Your task to perform on an android device: change text size in settings app Image 0: 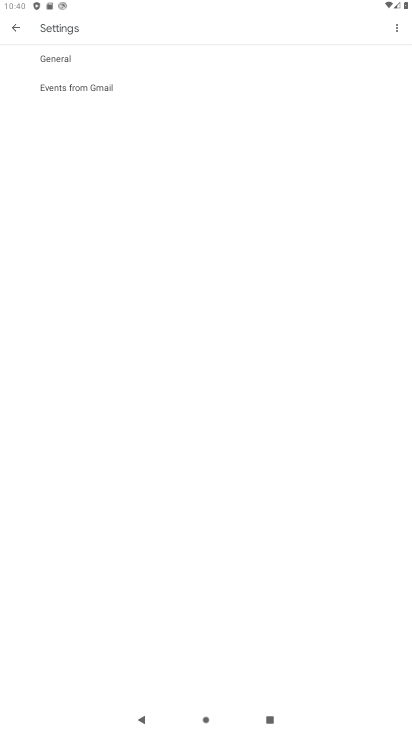
Step 0: press home button
Your task to perform on an android device: change text size in settings app Image 1: 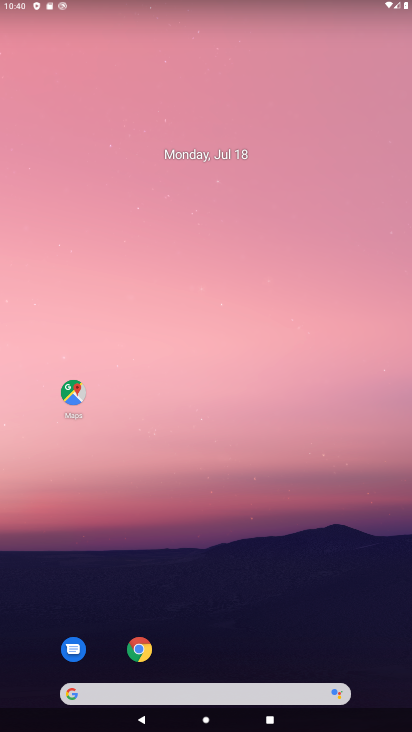
Step 1: drag from (230, 621) to (297, 110)
Your task to perform on an android device: change text size in settings app Image 2: 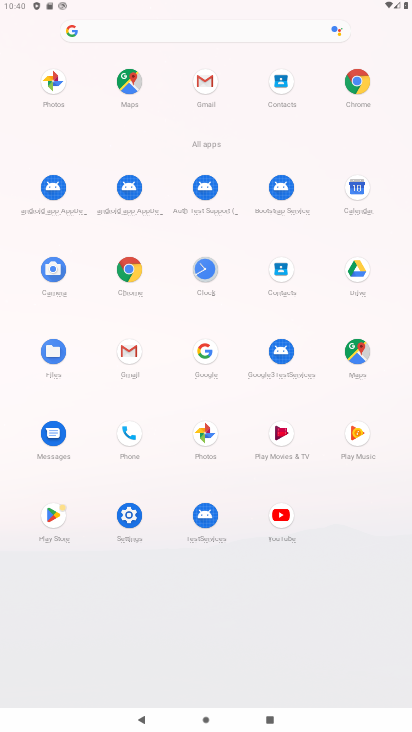
Step 2: click (143, 496)
Your task to perform on an android device: change text size in settings app Image 3: 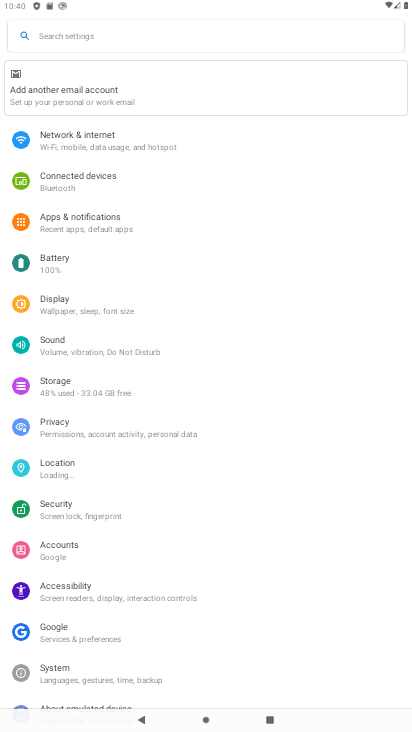
Step 3: click (69, 297)
Your task to perform on an android device: change text size in settings app Image 4: 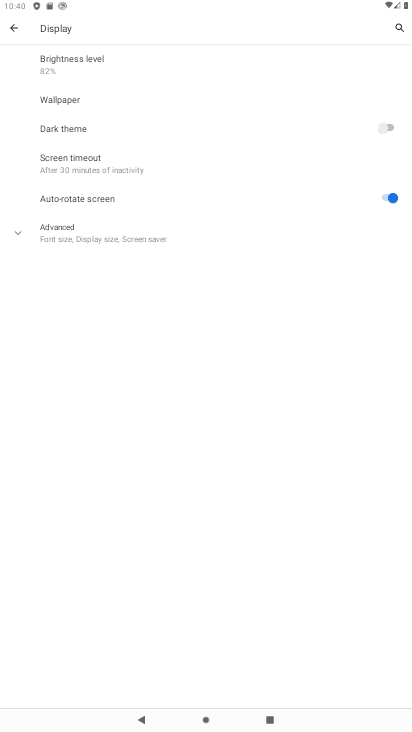
Step 4: click (149, 235)
Your task to perform on an android device: change text size in settings app Image 5: 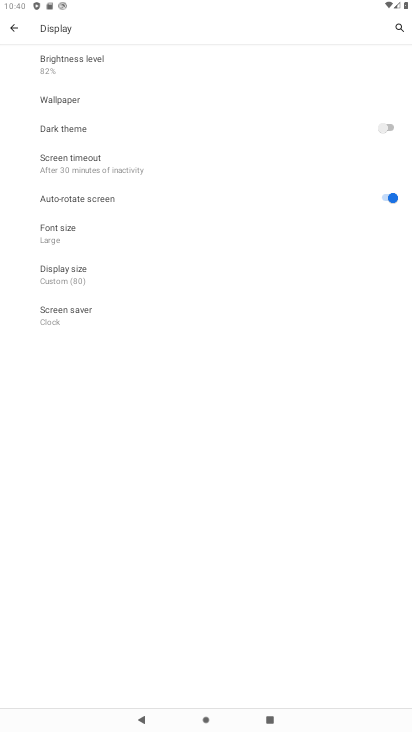
Step 5: click (105, 243)
Your task to perform on an android device: change text size in settings app Image 6: 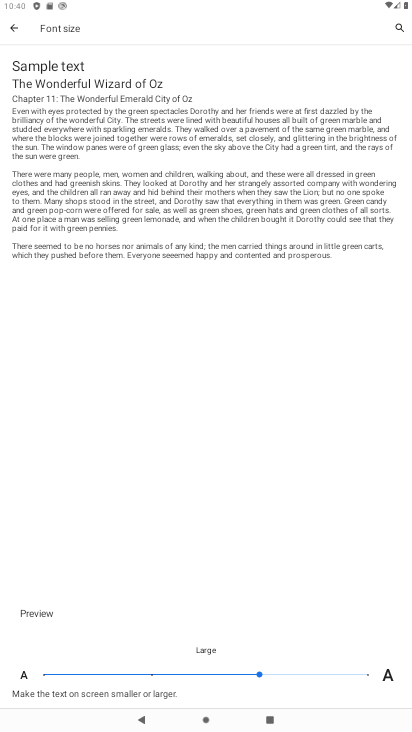
Step 6: click (368, 670)
Your task to perform on an android device: change text size in settings app Image 7: 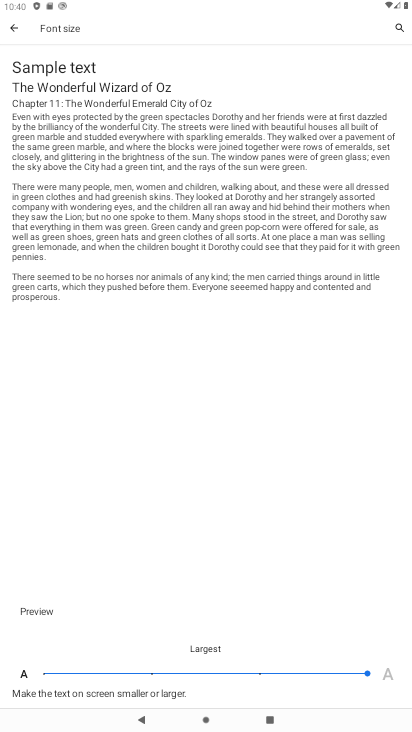
Step 7: task complete